Your task to perform on an android device: Go to ESPN.com Image 0: 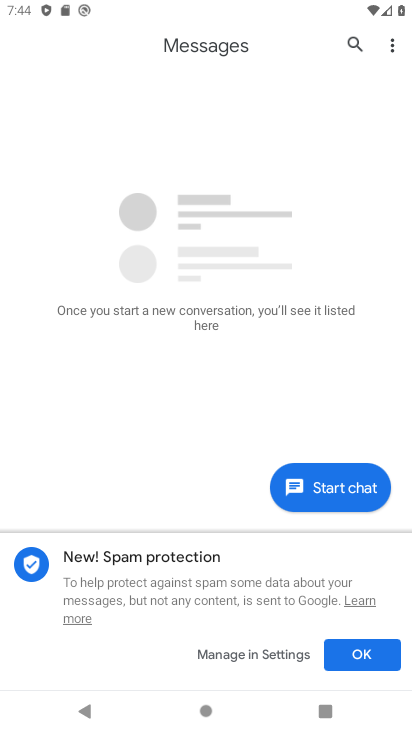
Step 0: press home button
Your task to perform on an android device: Go to ESPN.com Image 1: 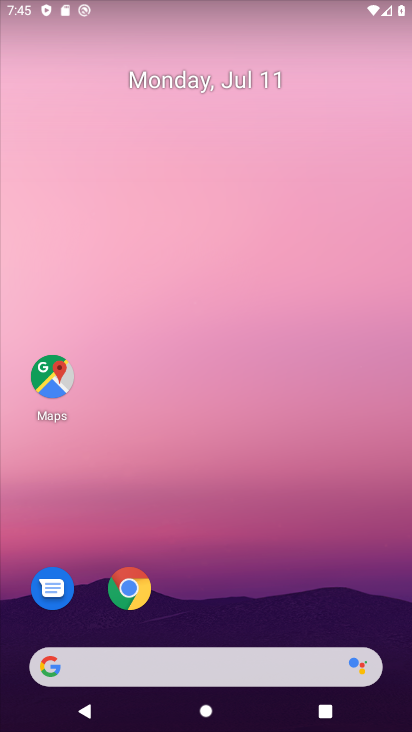
Step 1: click (157, 669)
Your task to perform on an android device: Go to ESPN.com Image 2: 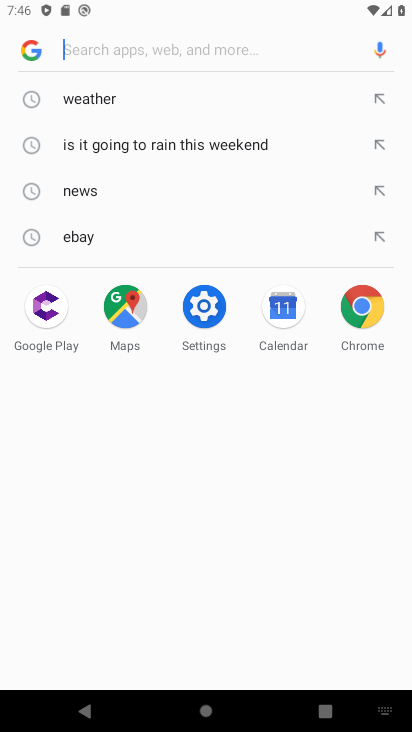
Step 2: type "espn.com"
Your task to perform on an android device: Go to ESPN.com Image 3: 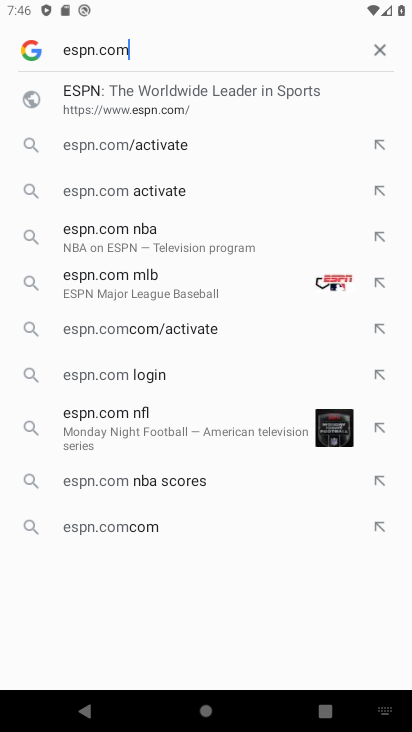
Step 3: click (191, 104)
Your task to perform on an android device: Go to ESPN.com Image 4: 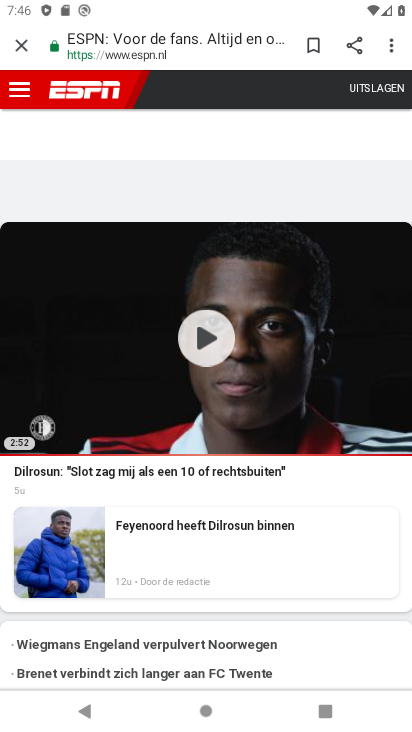
Step 4: task complete